Your task to perform on an android device: Go to privacy settings Image 0: 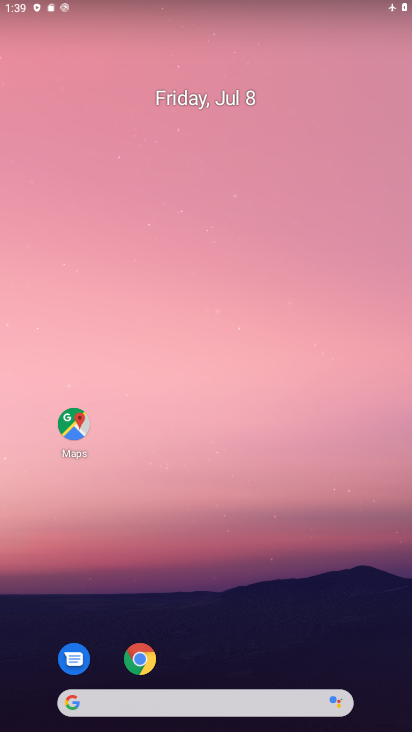
Step 0: drag from (191, 637) to (355, 18)
Your task to perform on an android device: Go to privacy settings Image 1: 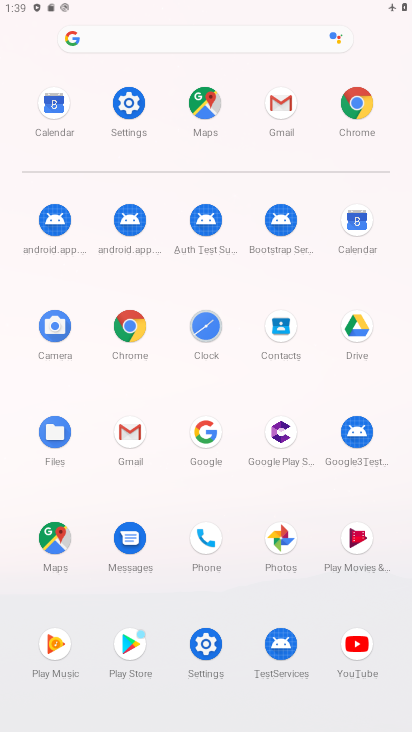
Step 1: click (208, 644)
Your task to perform on an android device: Go to privacy settings Image 2: 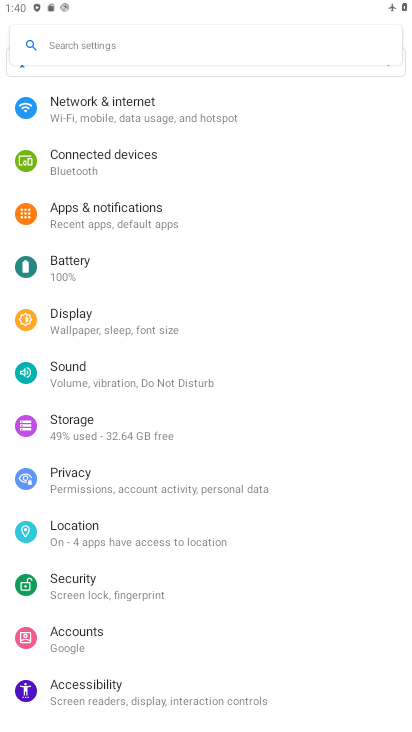
Step 2: click (134, 468)
Your task to perform on an android device: Go to privacy settings Image 3: 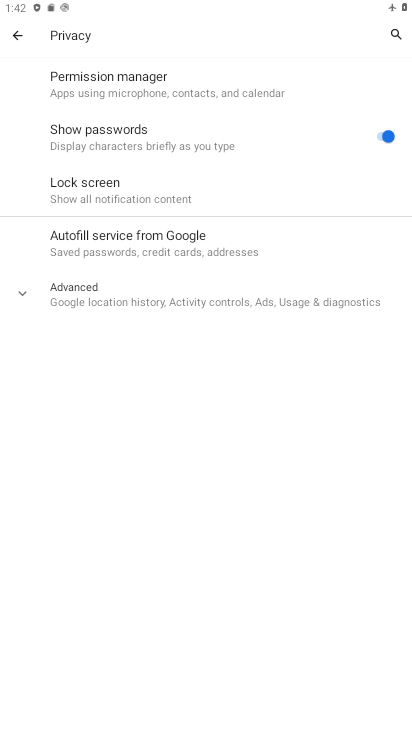
Step 3: task complete